Your task to perform on an android device: Go to Google maps Image 0: 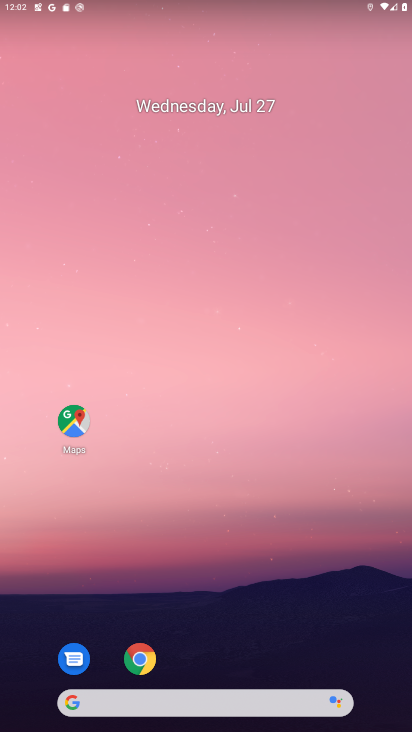
Step 0: drag from (207, 701) to (192, 46)
Your task to perform on an android device: Go to Google maps Image 1: 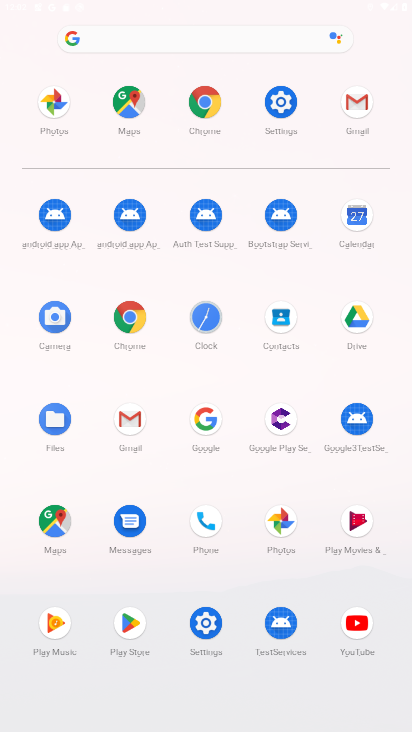
Step 1: click (62, 526)
Your task to perform on an android device: Go to Google maps Image 2: 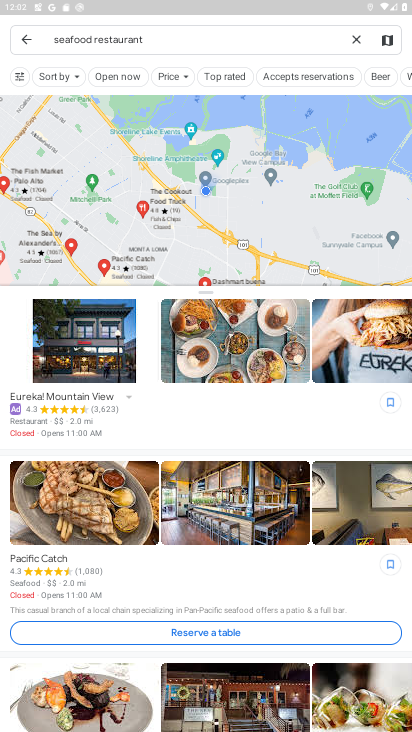
Step 2: press back button
Your task to perform on an android device: Go to Google maps Image 3: 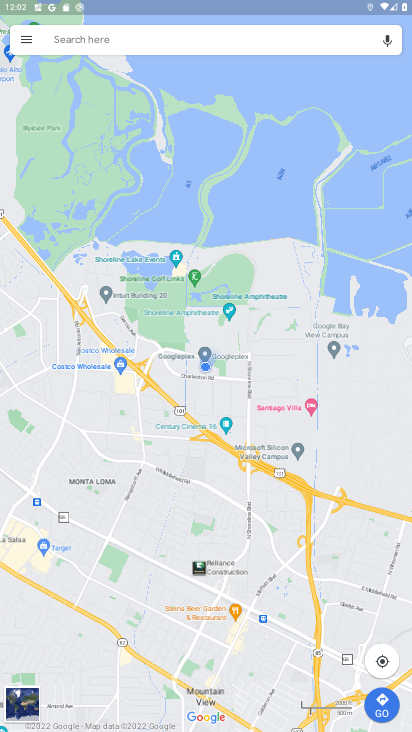
Step 3: click (171, 39)
Your task to perform on an android device: Go to Google maps Image 4: 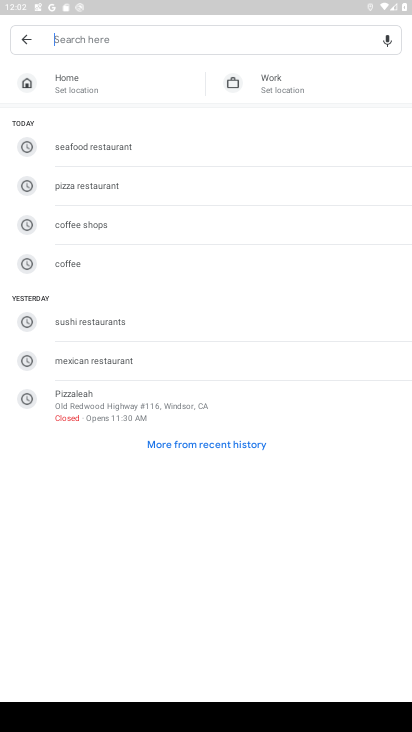
Step 4: task complete